Your task to perform on an android device: toggle pop-ups in chrome Image 0: 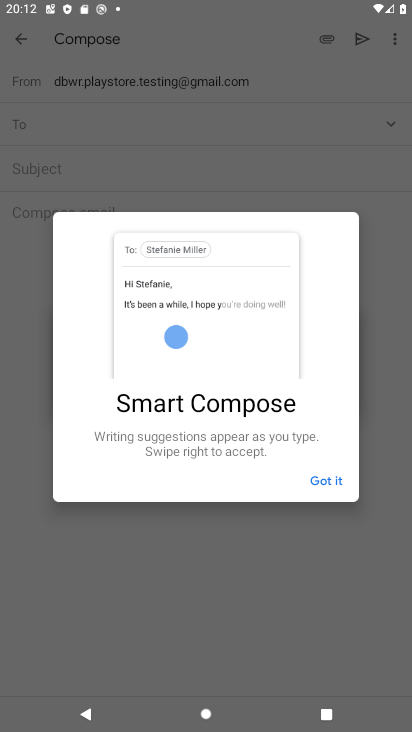
Step 0: press home button
Your task to perform on an android device: toggle pop-ups in chrome Image 1: 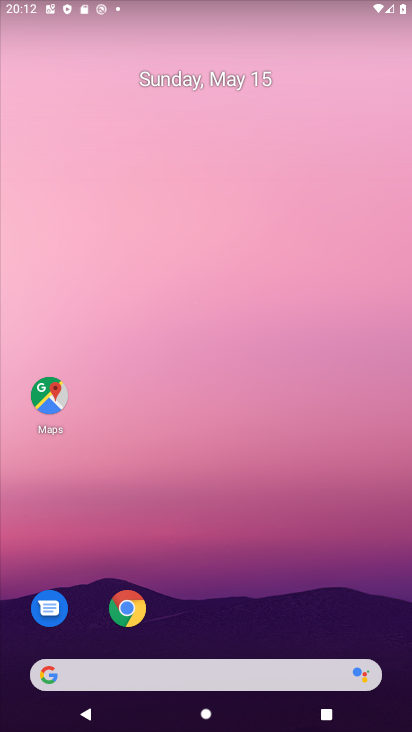
Step 1: click (129, 609)
Your task to perform on an android device: toggle pop-ups in chrome Image 2: 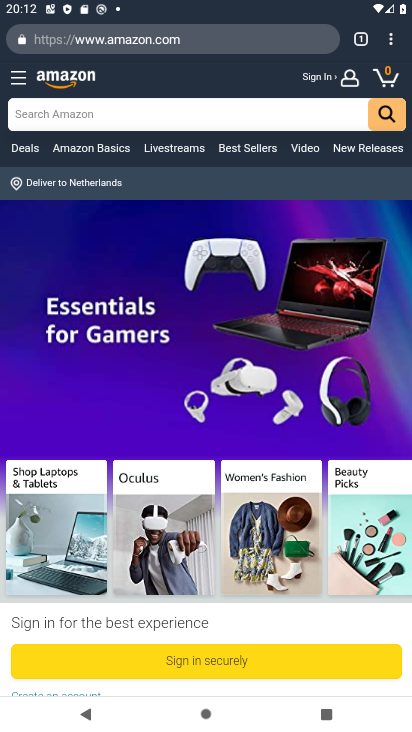
Step 2: click (380, 44)
Your task to perform on an android device: toggle pop-ups in chrome Image 3: 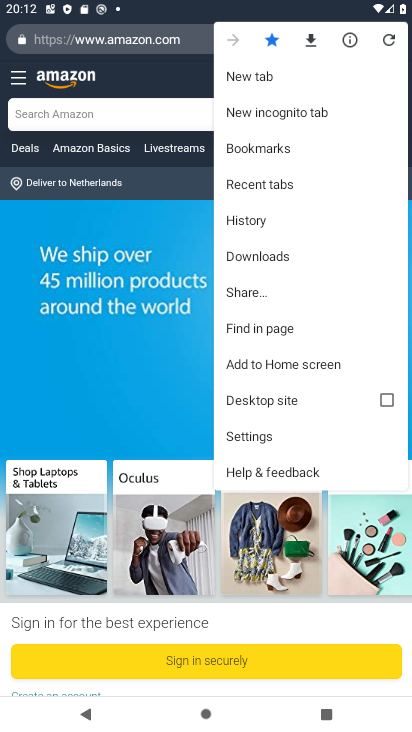
Step 3: click (265, 442)
Your task to perform on an android device: toggle pop-ups in chrome Image 4: 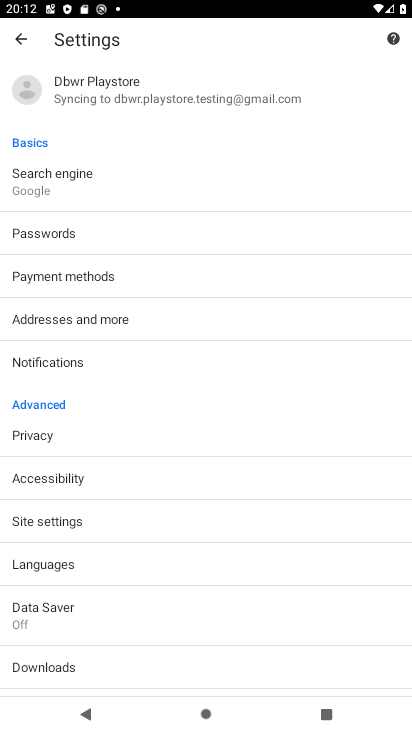
Step 4: click (76, 515)
Your task to perform on an android device: toggle pop-ups in chrome Image 5: 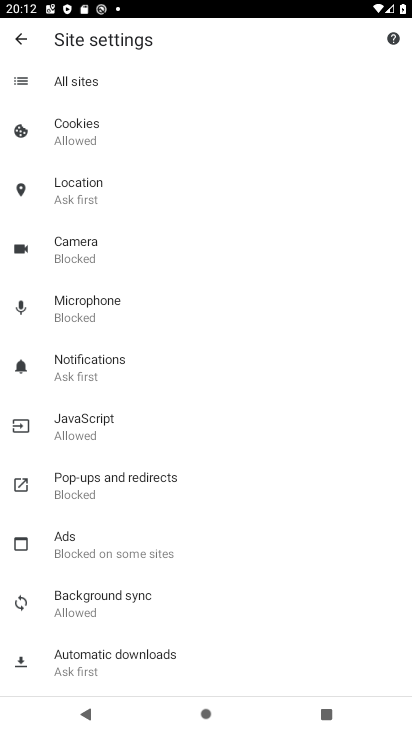
Step 5: click (108, 497)
Your task to perform on an android device: toggle pop-ups in chrome Image 6: 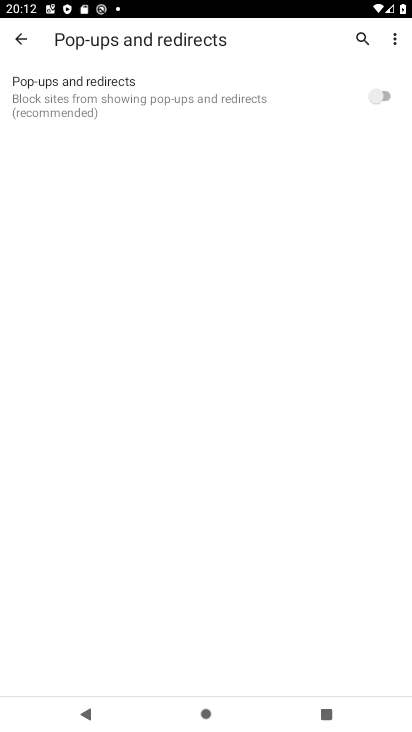
Step 6: click (373, 103)
Your task to perform on an android device: toggle pop-ups in chrome Image 7: 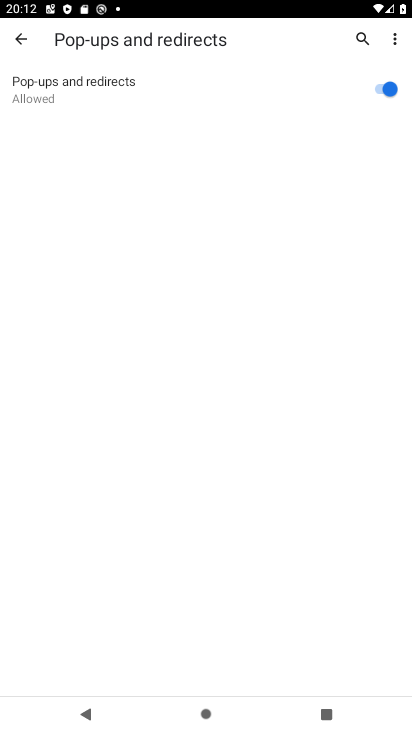
Step 7: task complete